Your task to perform on an android device: Turn off the flashlight Image 0: 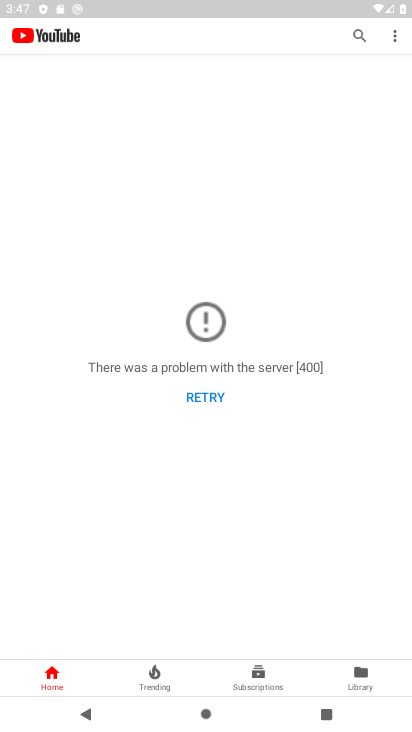
Step 0: press home button
Your task to perform on an android device: Turn off the flashlight Image 1: 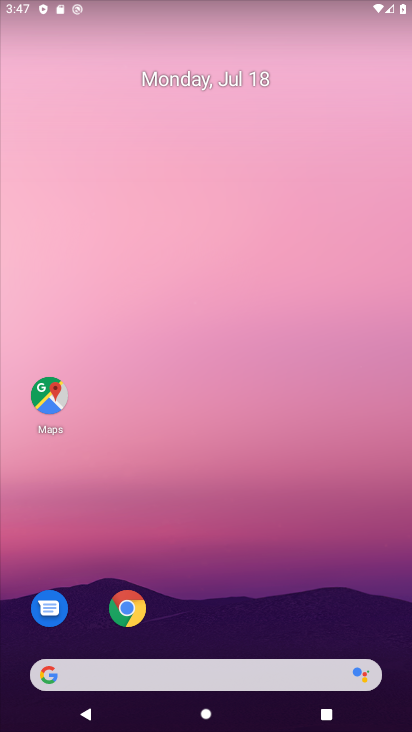
Step 1: drag from (335, 6) to (317, 362)
Your task to perform on an android device: Turn off the flashlight Image 2: 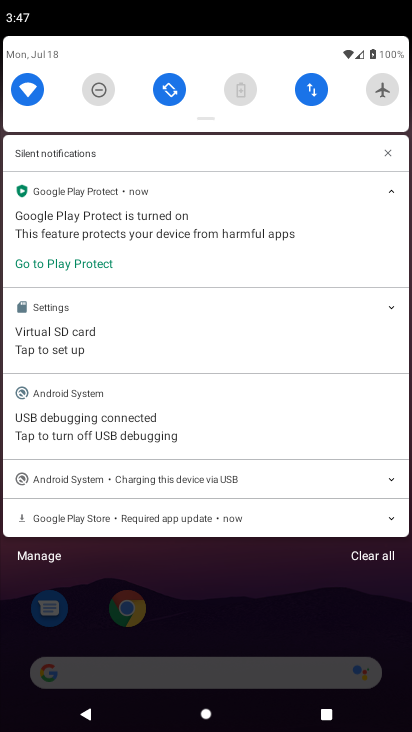
Step 2: drag from (276, 98) to (279, 411)
Your task to perform on an android device: Turn off the flashlight Image 3: 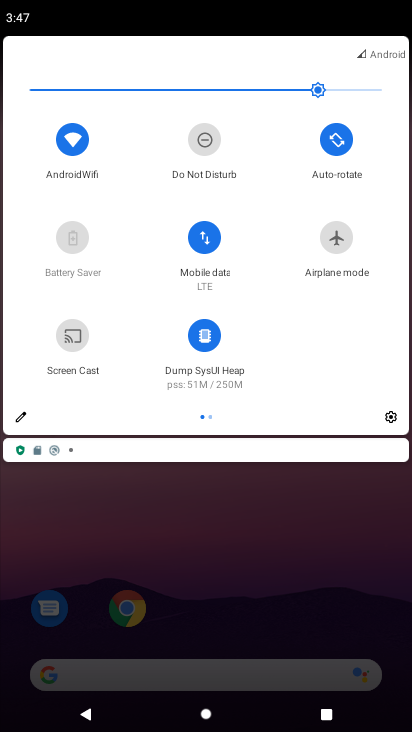
Step 3: click (21, 410)
Your task to perform on an android device: Turn off the flashlight Image 4: 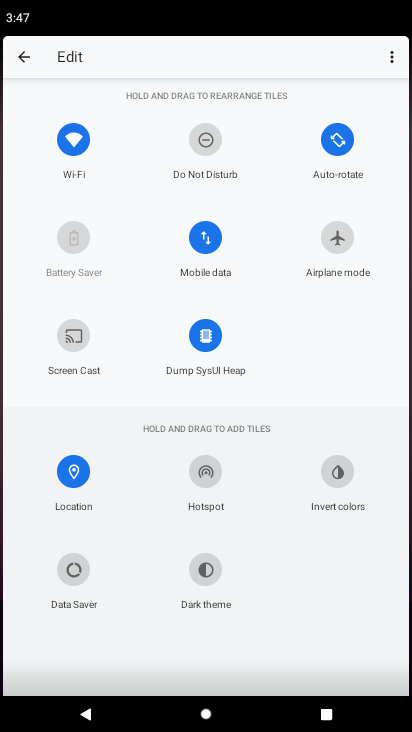
Step 4: task complete